Your task to perform on an android device: turn off priority inbox in the gmail app Image 0: 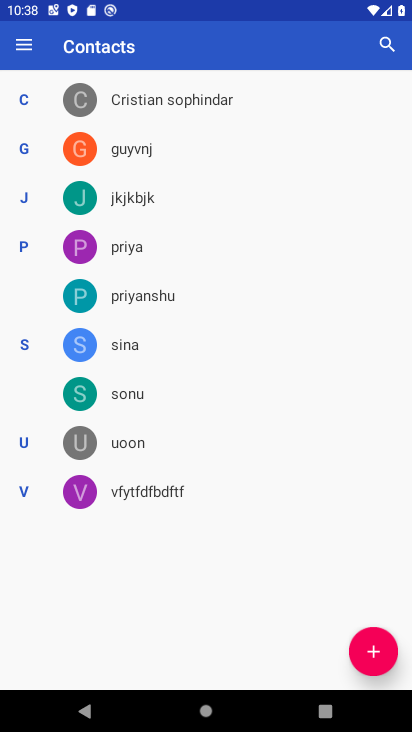
Step 0: press home button
Your task to perform on an android device: turn off priority inbox in the gmail app Image 1: 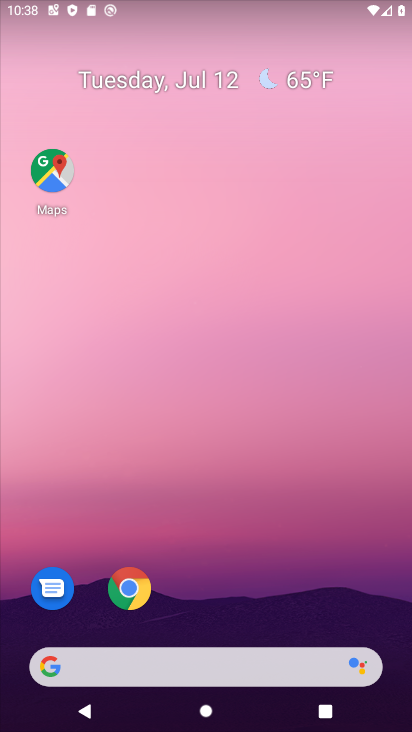
Step 1: drag from (12, 696) to (144, 76)
Your task to perform on an android device: turn off priority inbox in the gmail app Image 2: 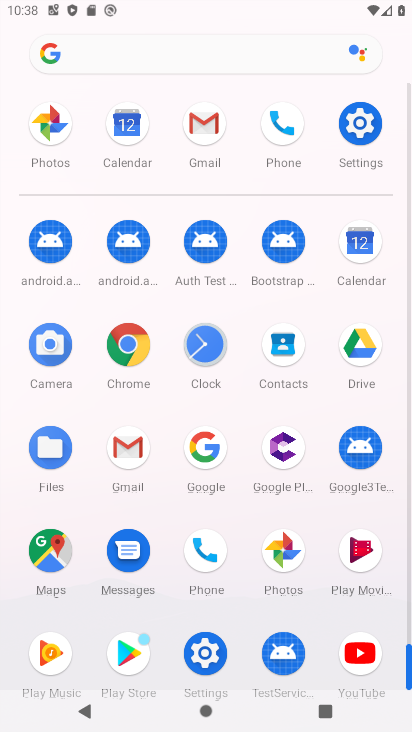
Step 2: click (135, 436)
Your task to perform on an android device: turn off priority inbox in the gmail app Image 3: 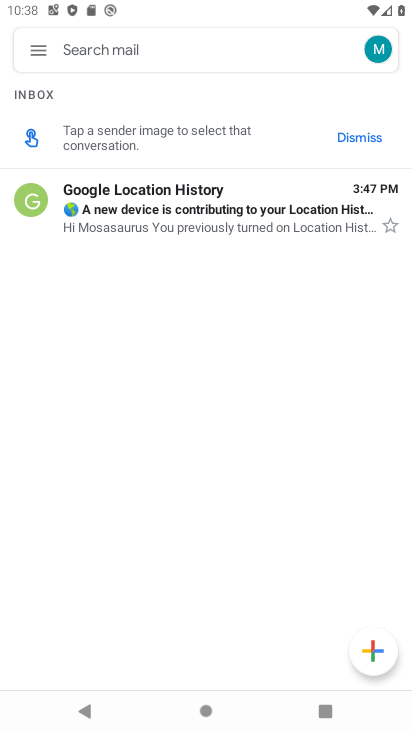
Step 3: click (36, 45)
Your task to perform on an android device: turn off priority inbox in the gmail app Image 4: 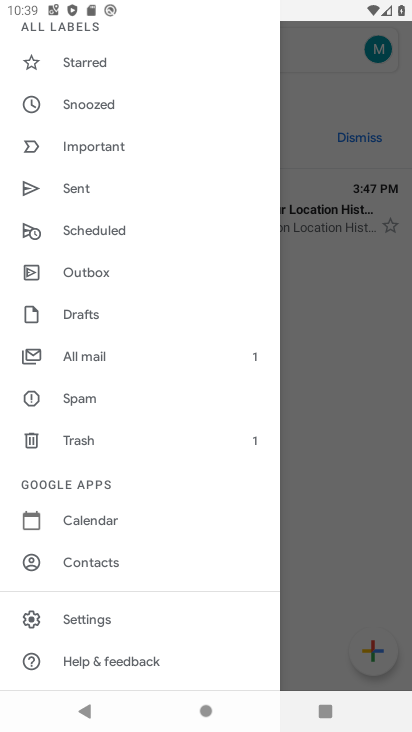
Step 4: click (83, 620)
Your task to perform on an android device: turn off priority inbox in the gmail app Image 5: 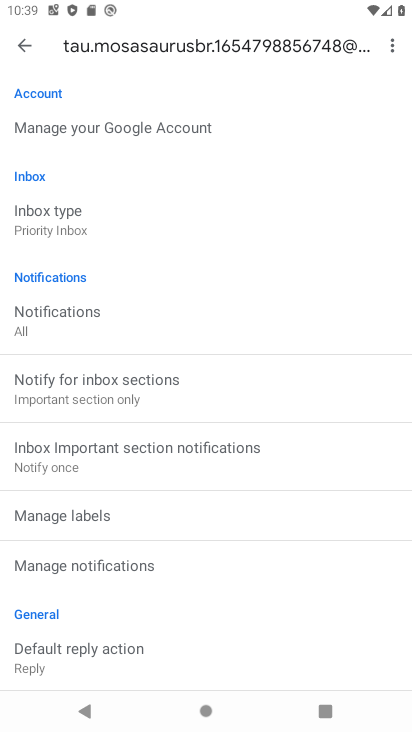
Step 5: click (76, 223)
Your task to perform on an android device: turn off priority inbox in the gmail app Image 6: 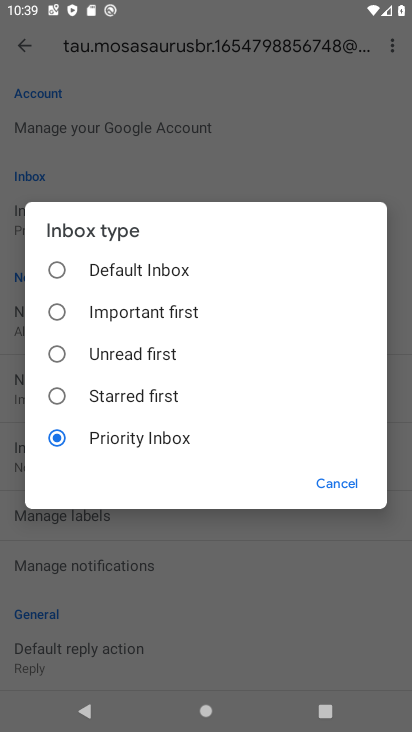
Step 6: task complete